Your task to perform on an android device: Search for acer predator on newegg, select the first entry, and add it to the cart. Image 0: 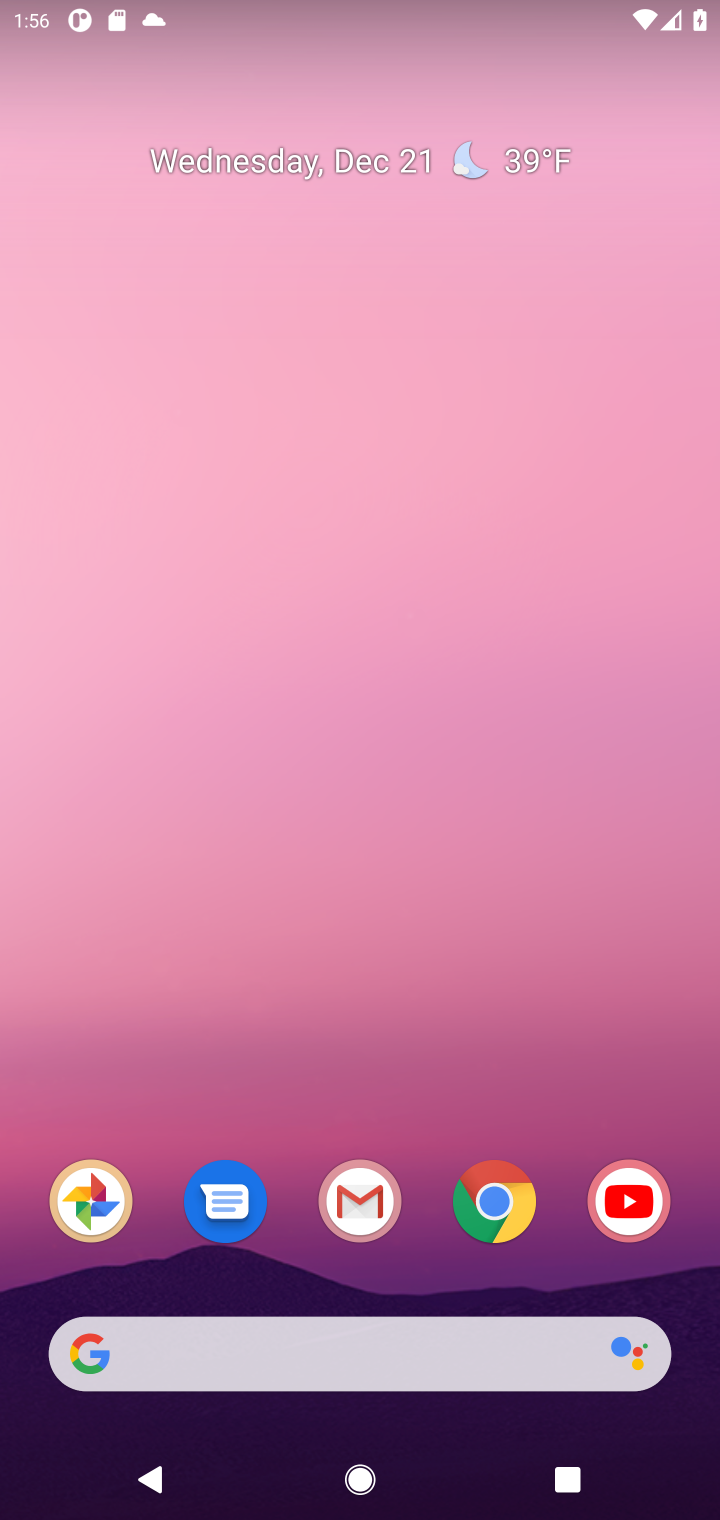
Step 0: click (494, 1207)
Your task to perform on an android device: Search for acer predator on newegg, select the first entry, and add it to the cart. Image 1: 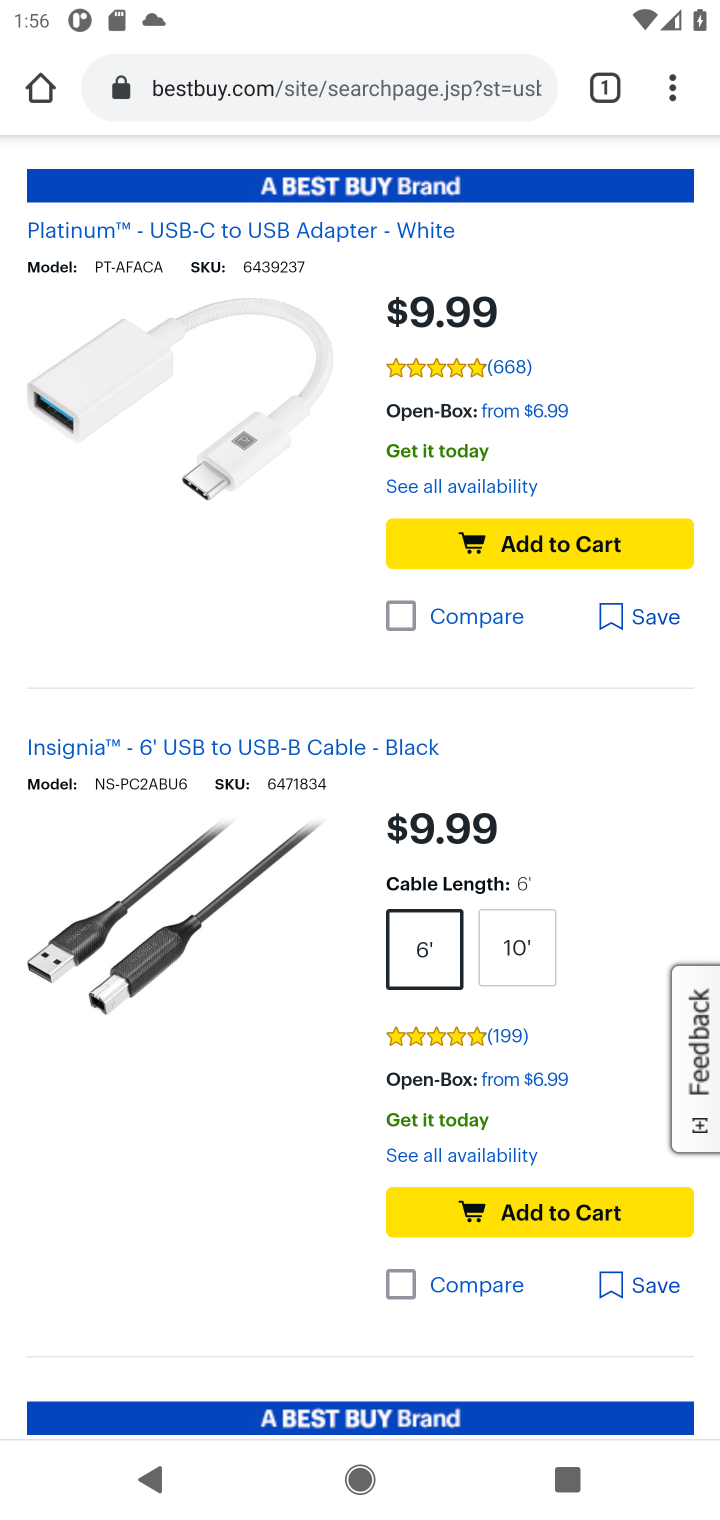
Step 1: click (280, 90)
Your task to perform on an android device: Search for acer predator on newegg, select the first entry, and add it to the cart. Image 2: 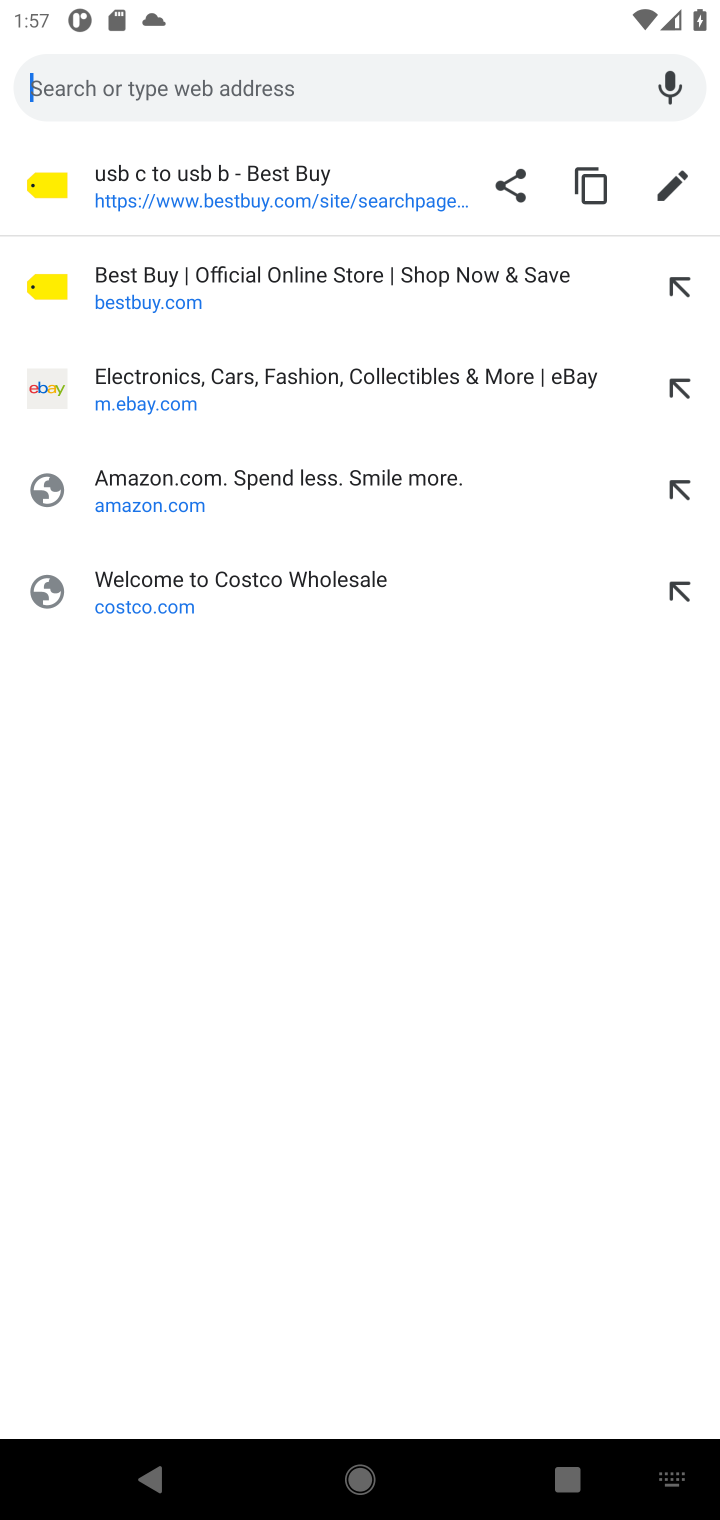
Step 2: type "newegg.com"
Your task to perform on an android device: Search for acer predator on newegg, select the first entry, and add it to the cart. Image 3: 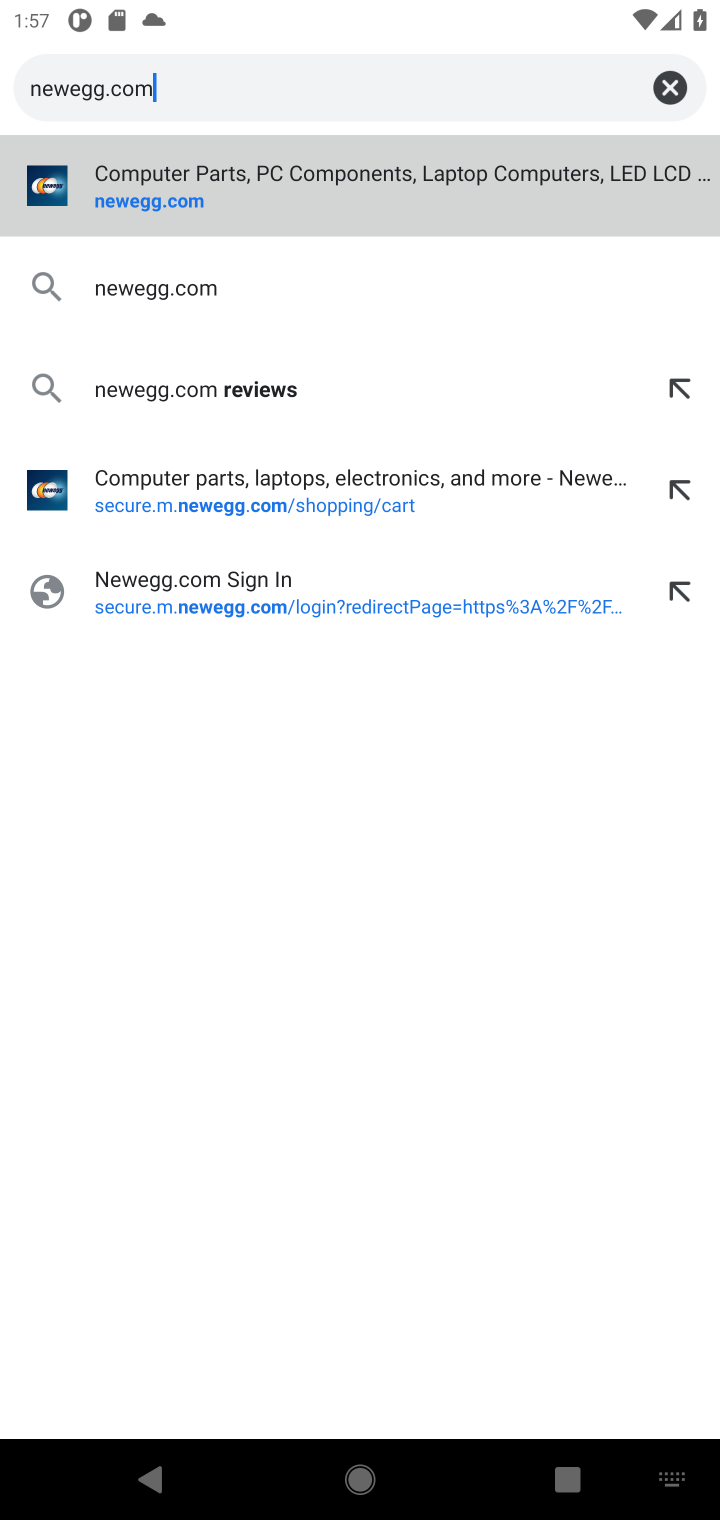
Step 3: click (161, 200)
Your task to perform on an android device: Search for acer predator on newegg, select the first entry, and add it to the cart. Image 4: 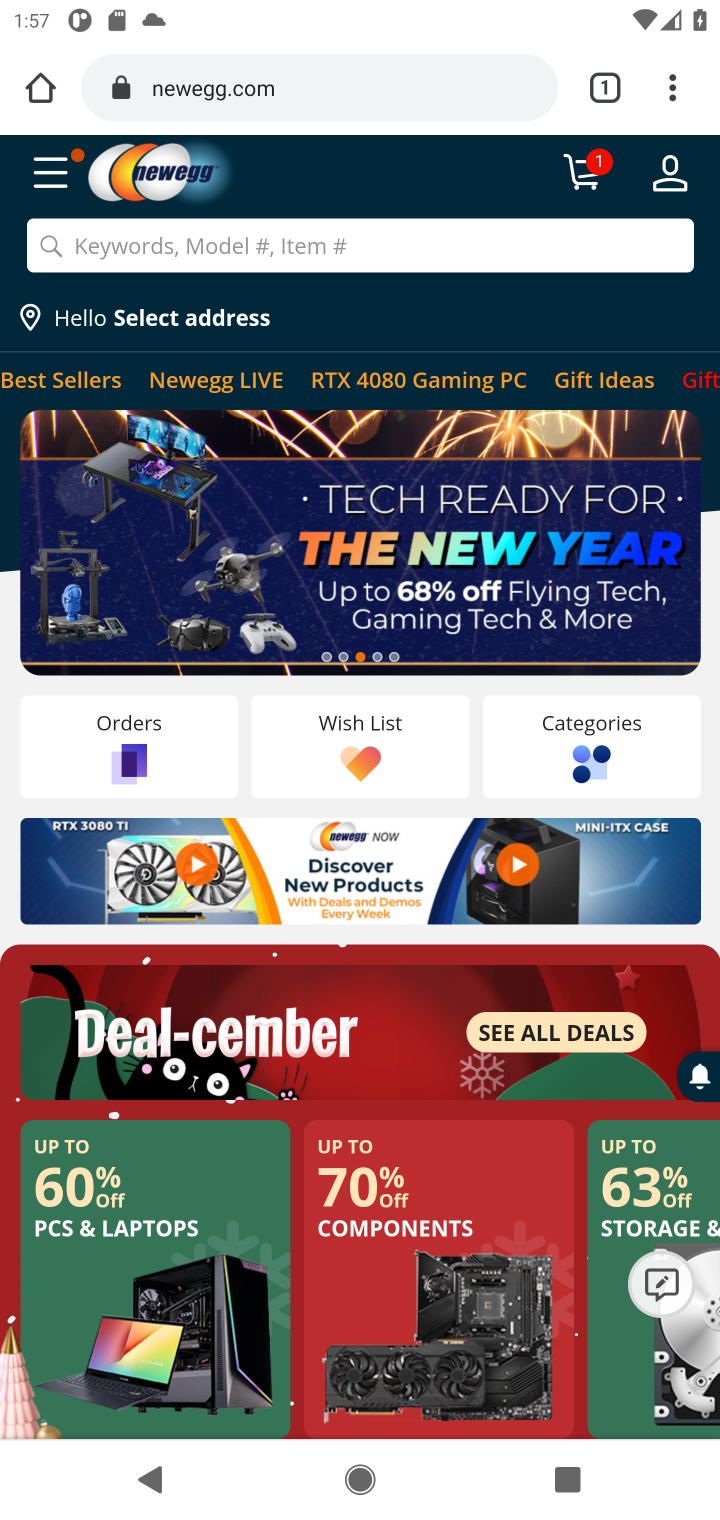
Step 4: click (123, 256)
Your task to perform on an android device: Search for acer predator on newegg, select the first entry, and add it to the cart. Image 5: 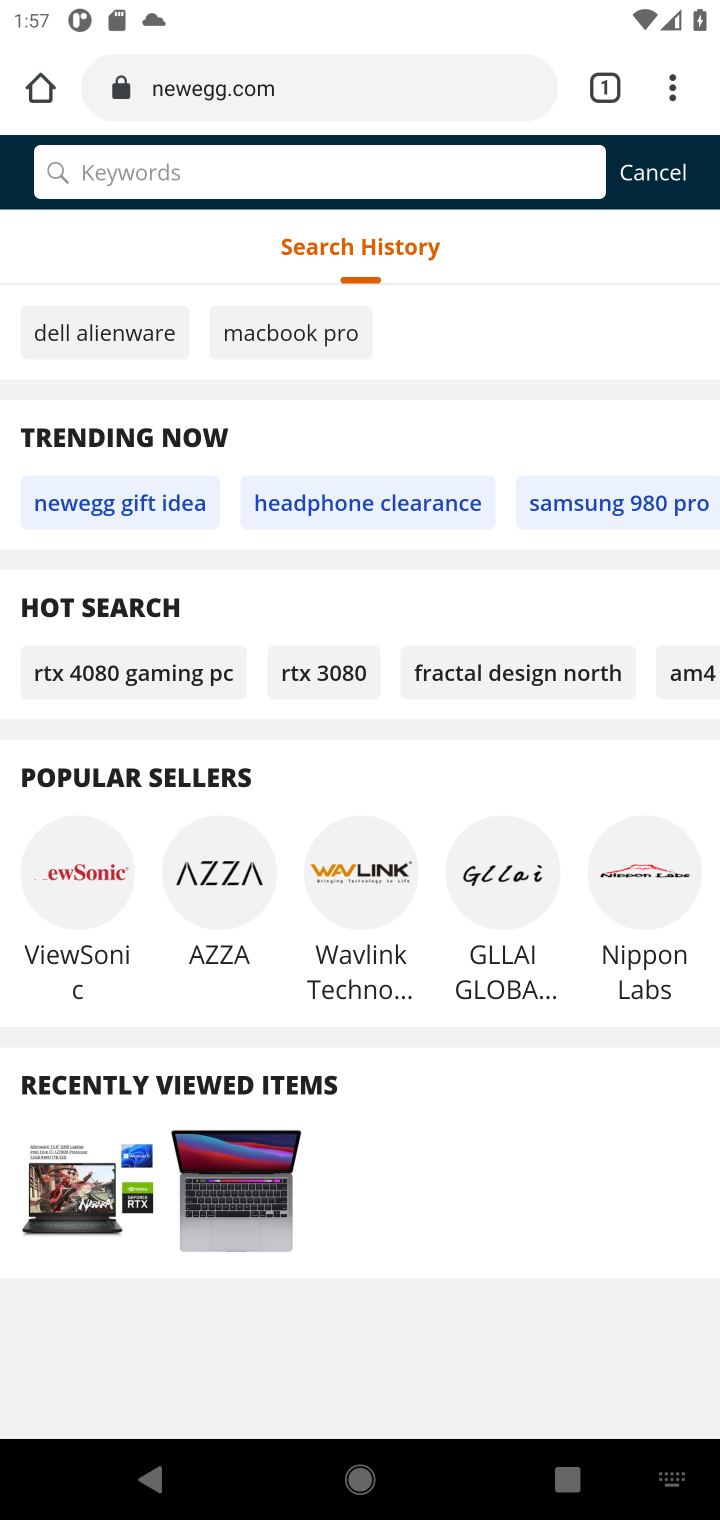
Step 5: type "acer predator"
Your task to perform on an android device: Search for acer predator on newegg, select the first entry, and add it to the cart. Image 6: 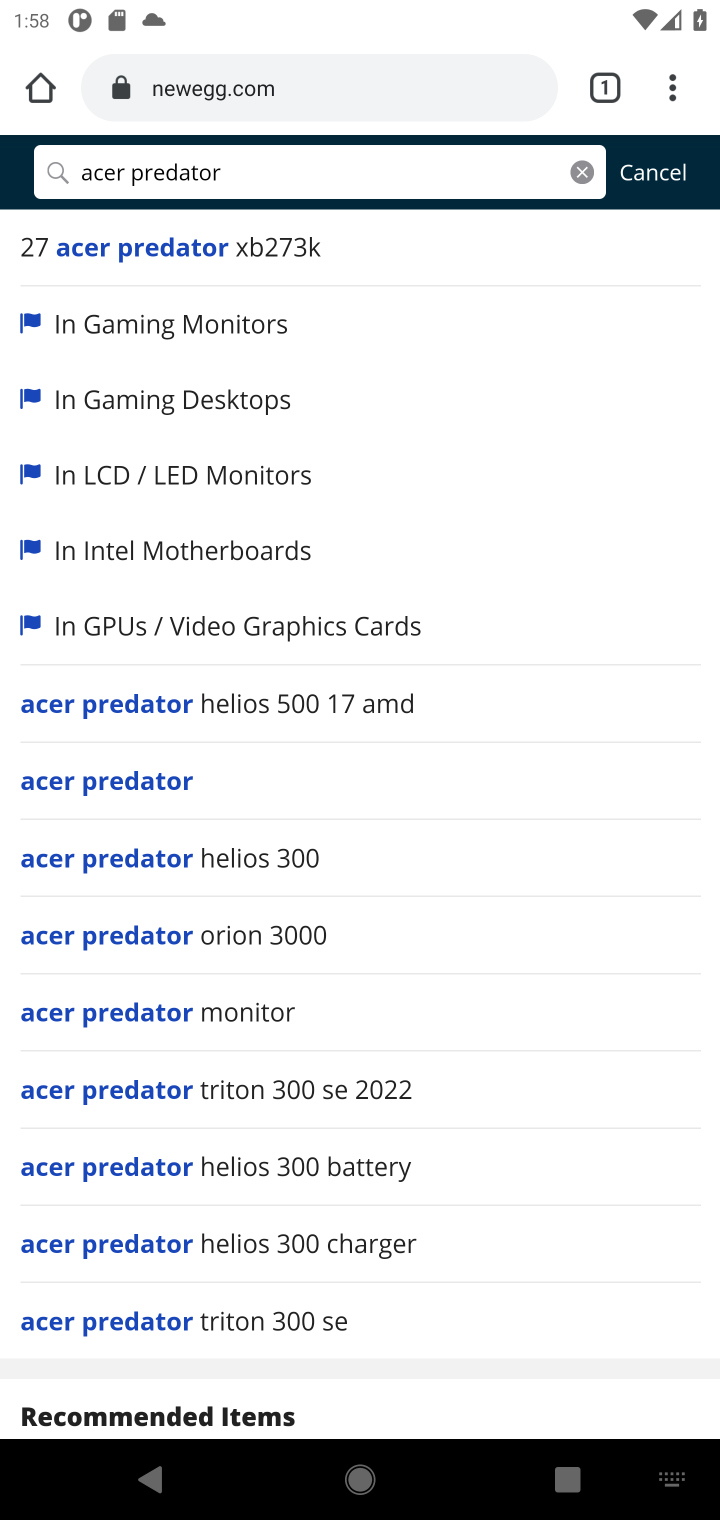
Step 6: click (97, 783)
Your task to perform on an android device: Search for acer predator on newegg, select the first entry, and add it to the cart. Image 7: 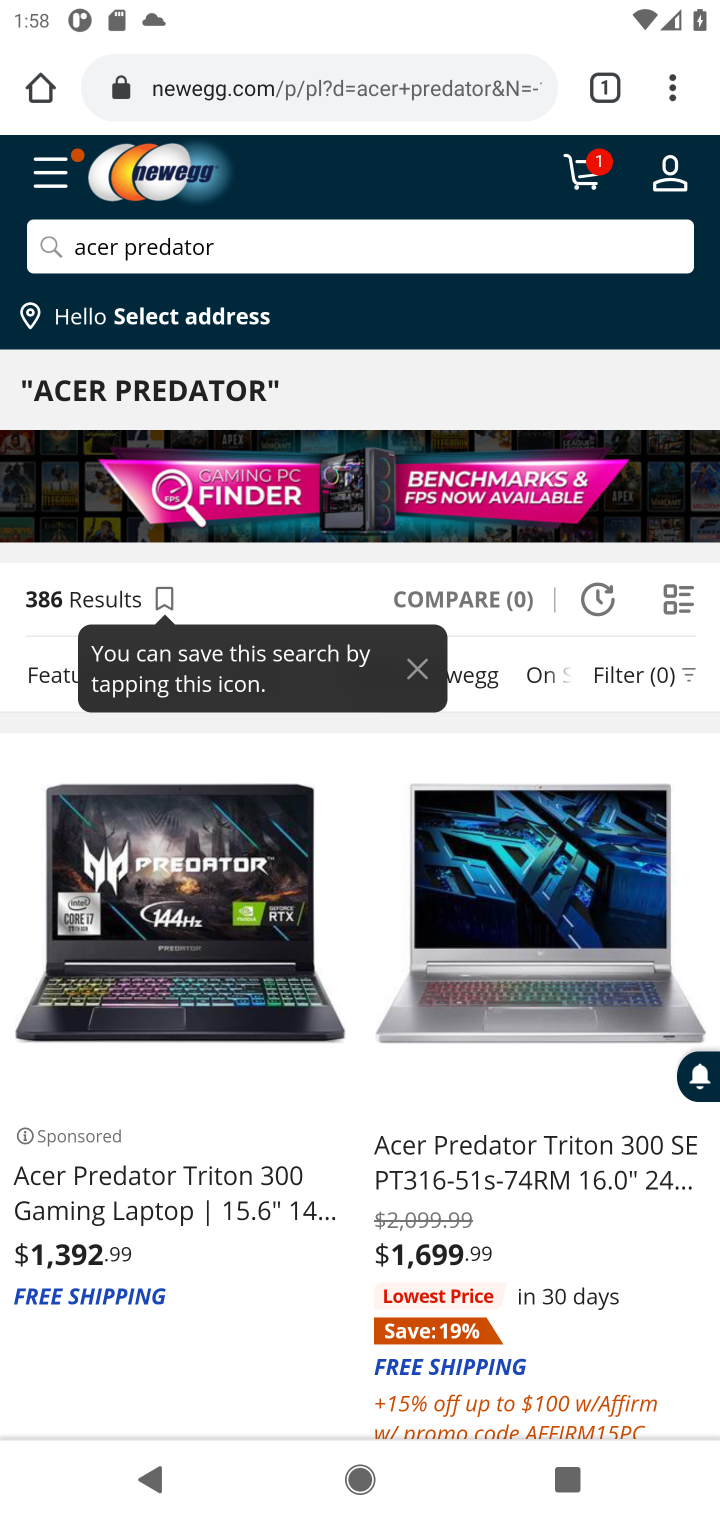
Step 7: click (139, 1200)
Your task to perform on an android device: Search for acer predator on newegg, select the first entry, and add it to the cart. Image 8: 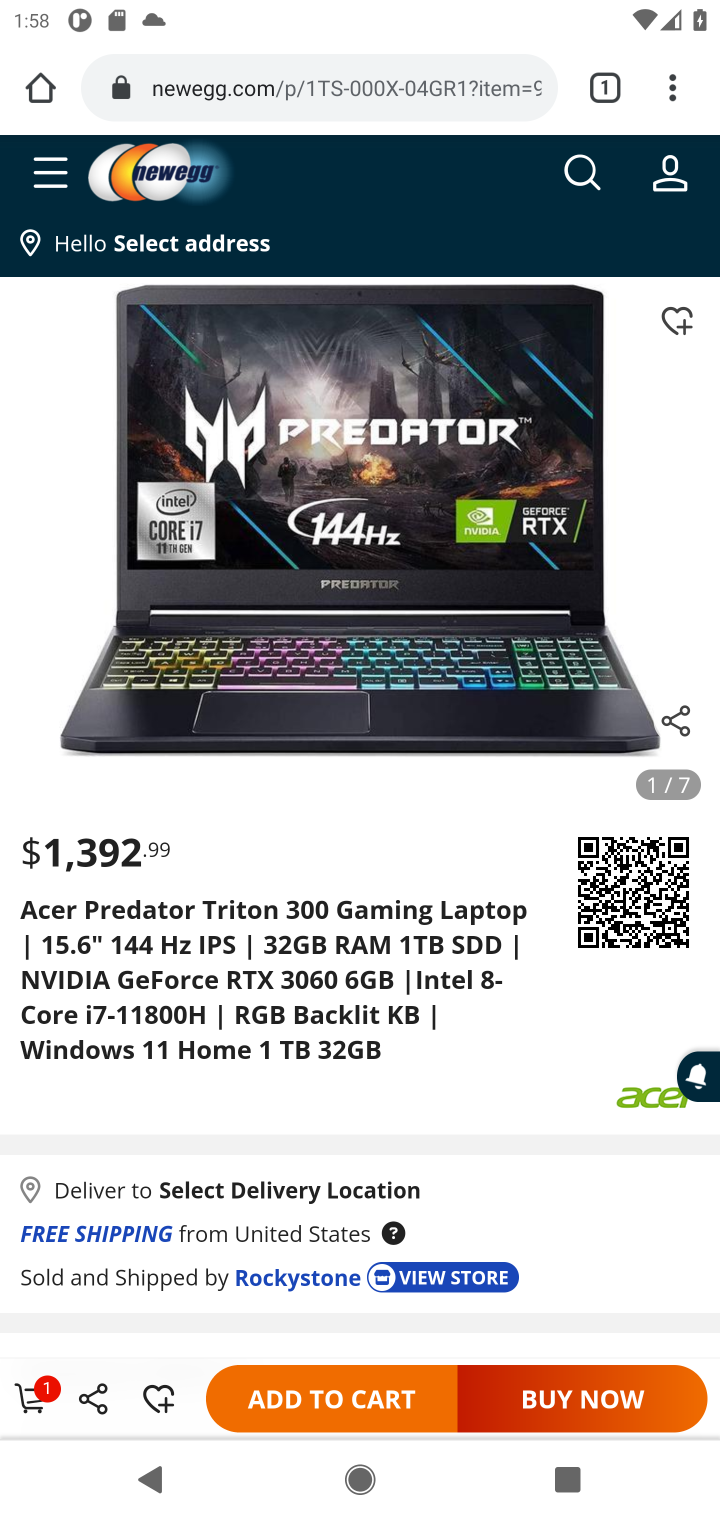
Step 8: click (296, 1394)
Your task to perform on an android device: Search for acer predator on newegg, select the first entry, and add it to the cart. Image 9: 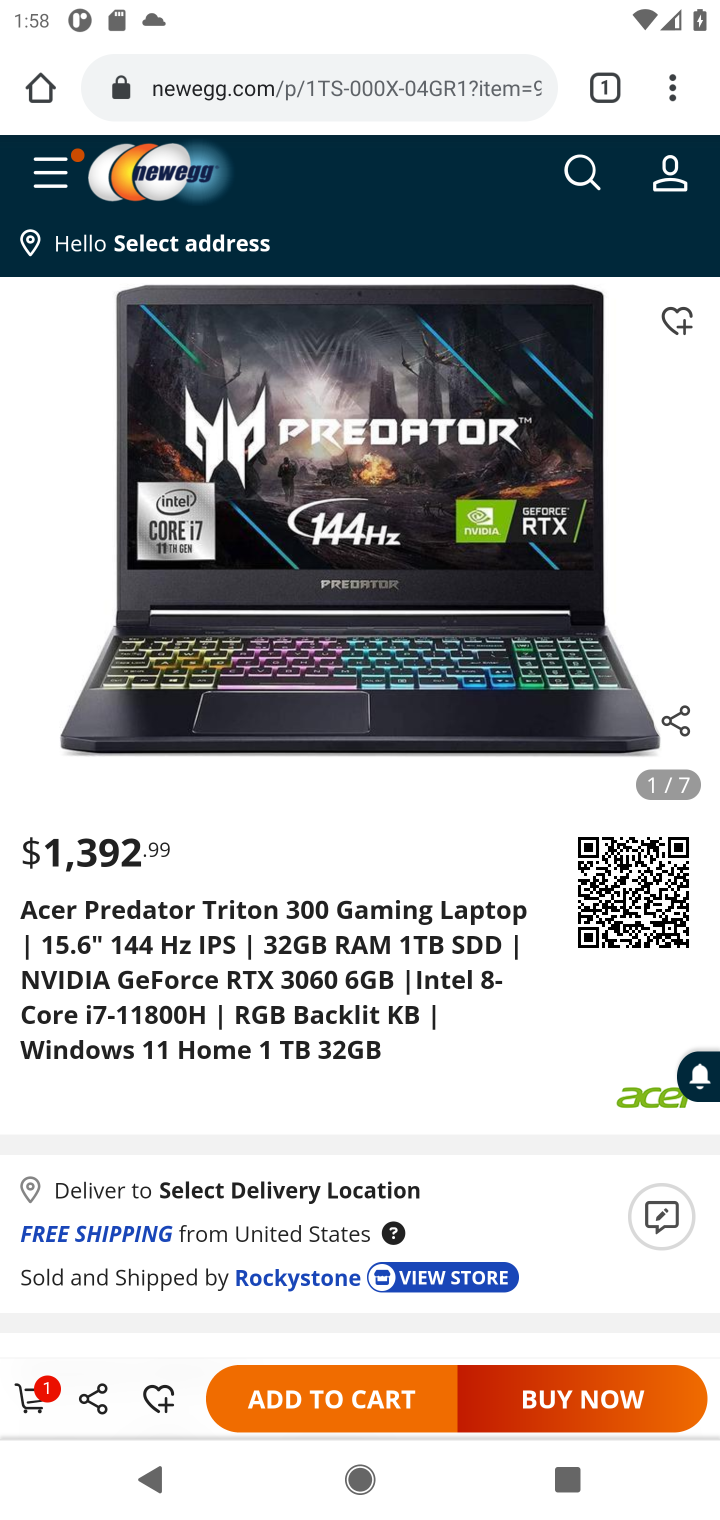
Step 9: click (316, 1402)
Your task to perform on an android device: Search for acer predator on newegg, select the first entry, and add it to the cart. Image 10: 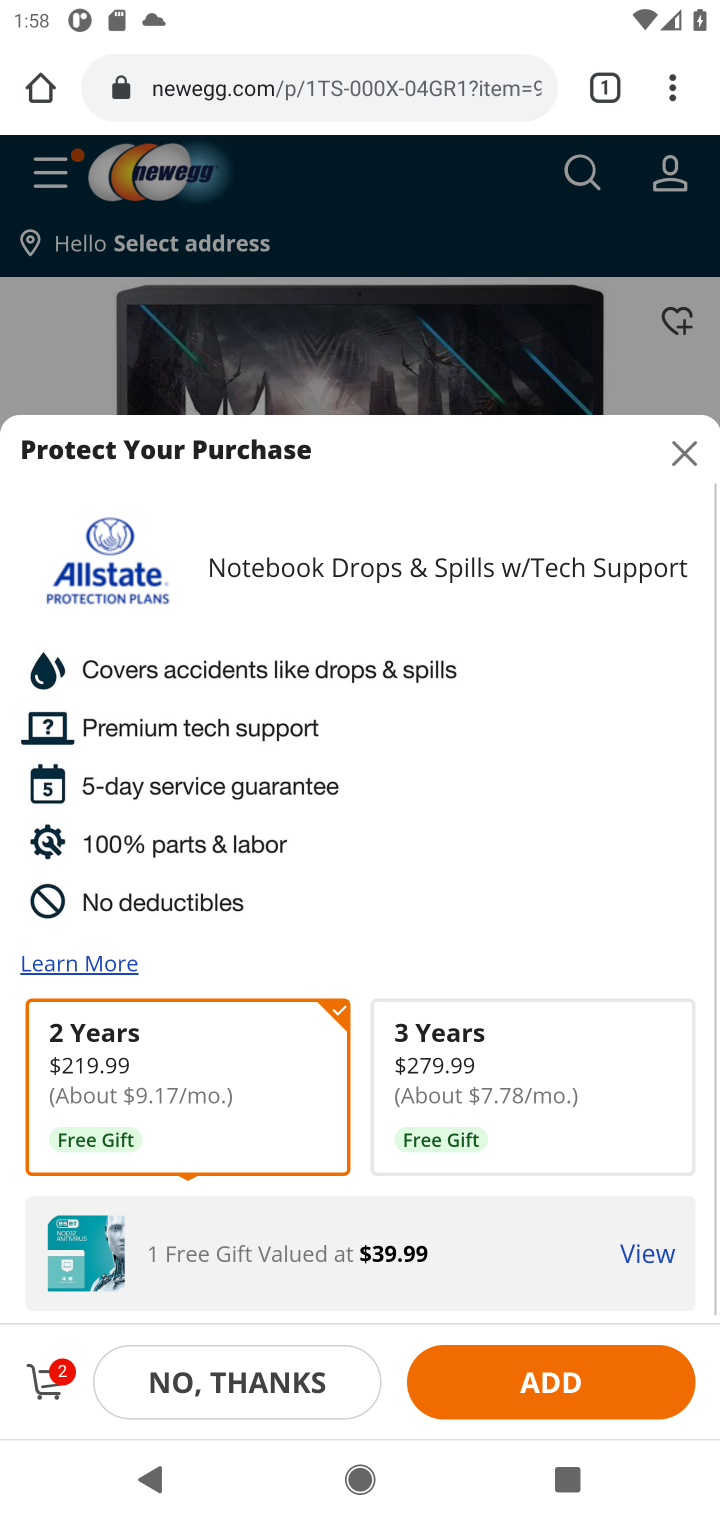
Step 10: click (39, 1387)
Your task to perform on an android device: Search for acer predator on newegg, select the first entry, and add it to the cart. Image 11: 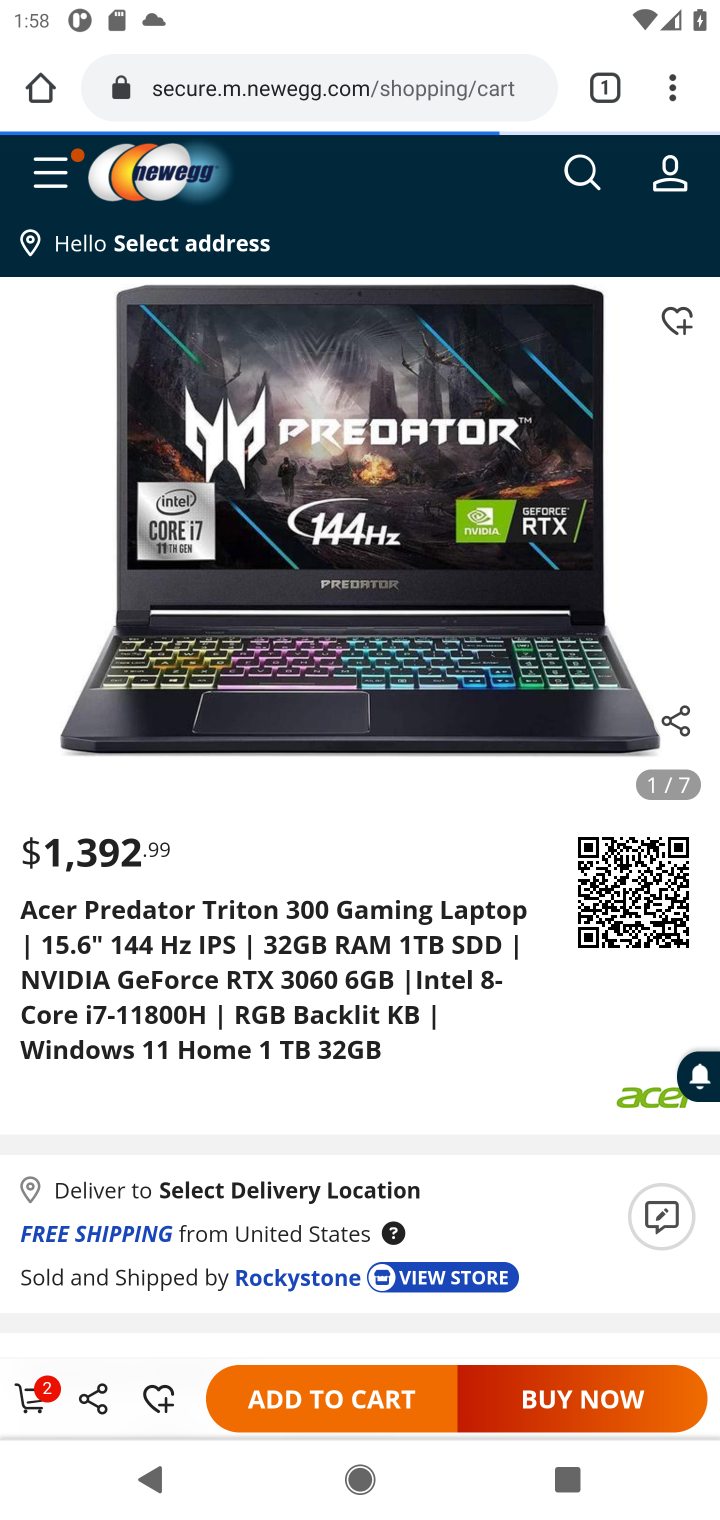
Step 11: task complete